Your task to perform on an android device: check battery use Image 0: 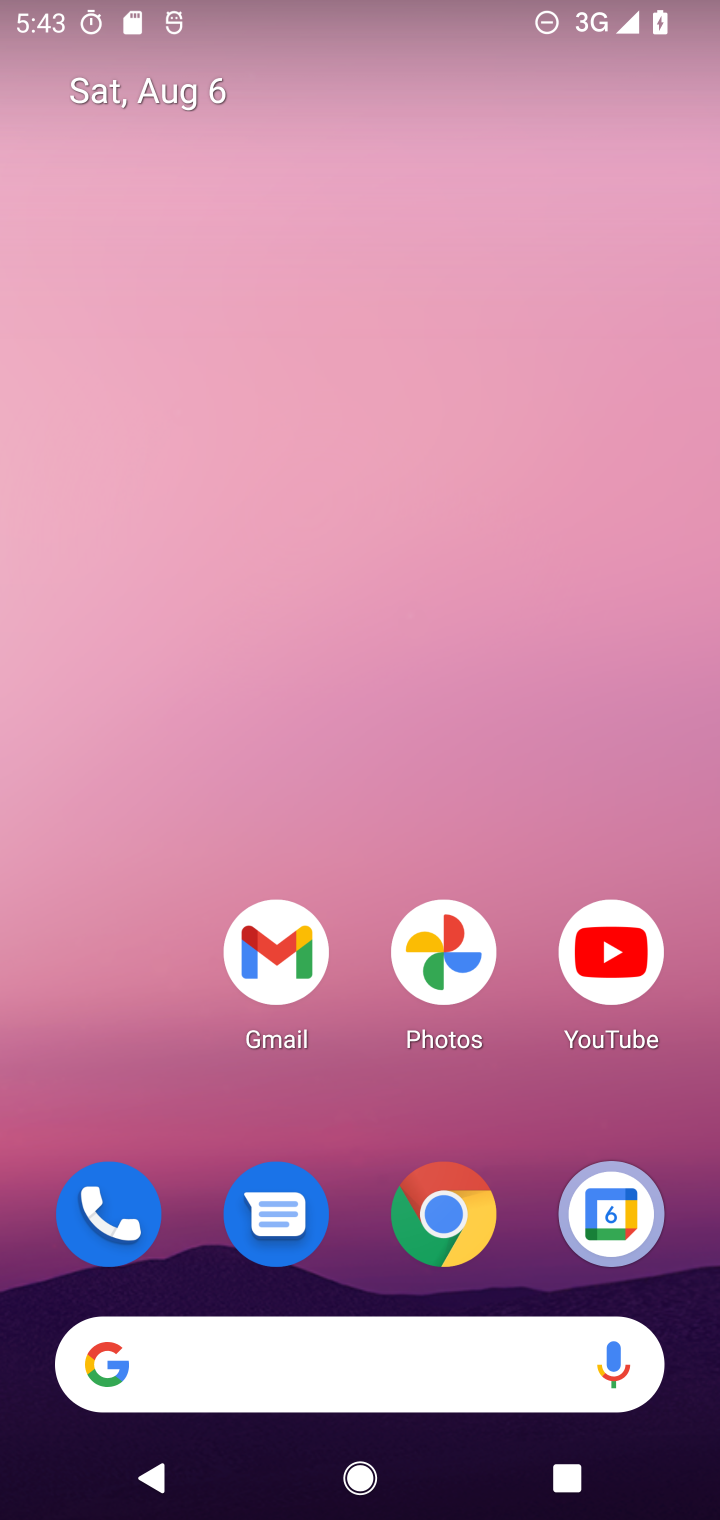
Step 0: press home button
Your task to perform on an android device: check battery use Image 1: 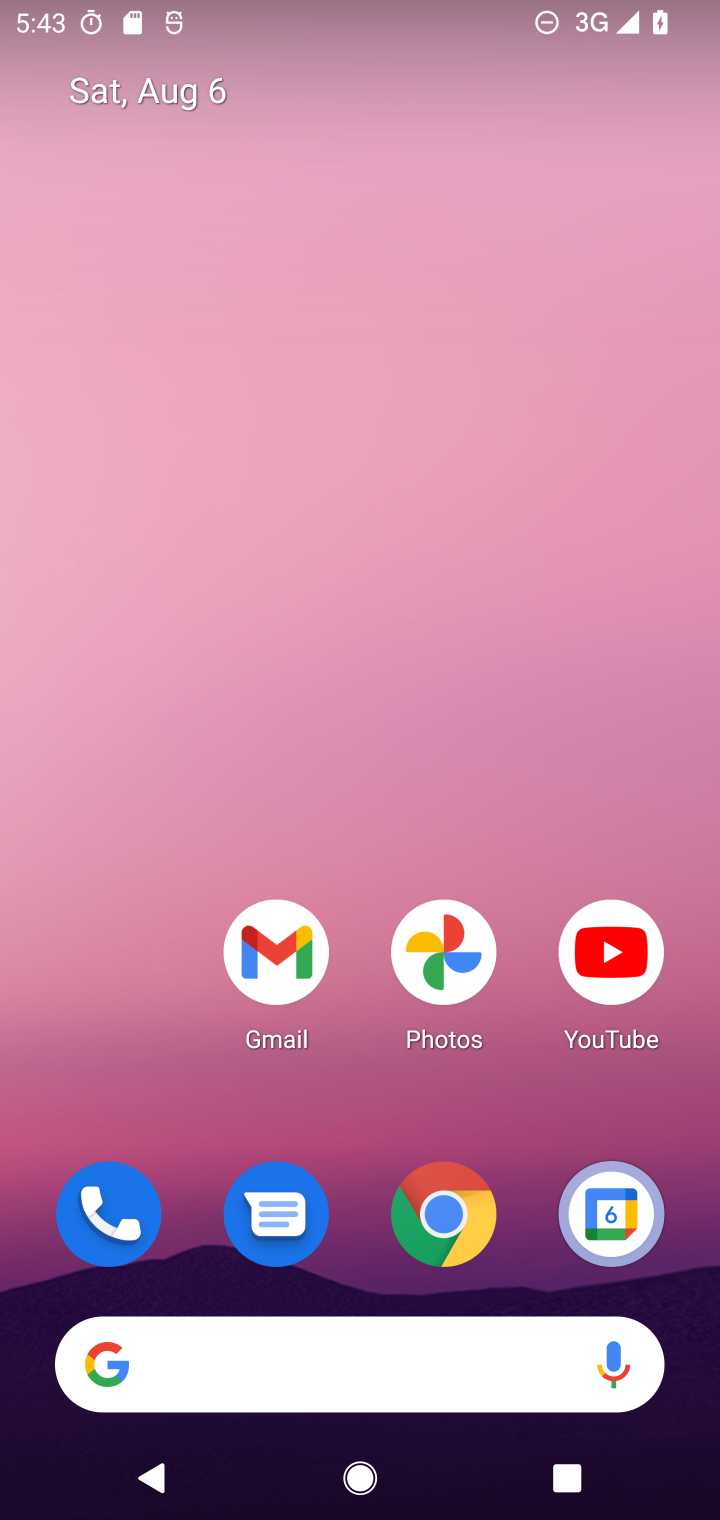
Step 1: drag from (370, 666) to (370, 587)
Your task to perform on an android device: check battery use Image 2: 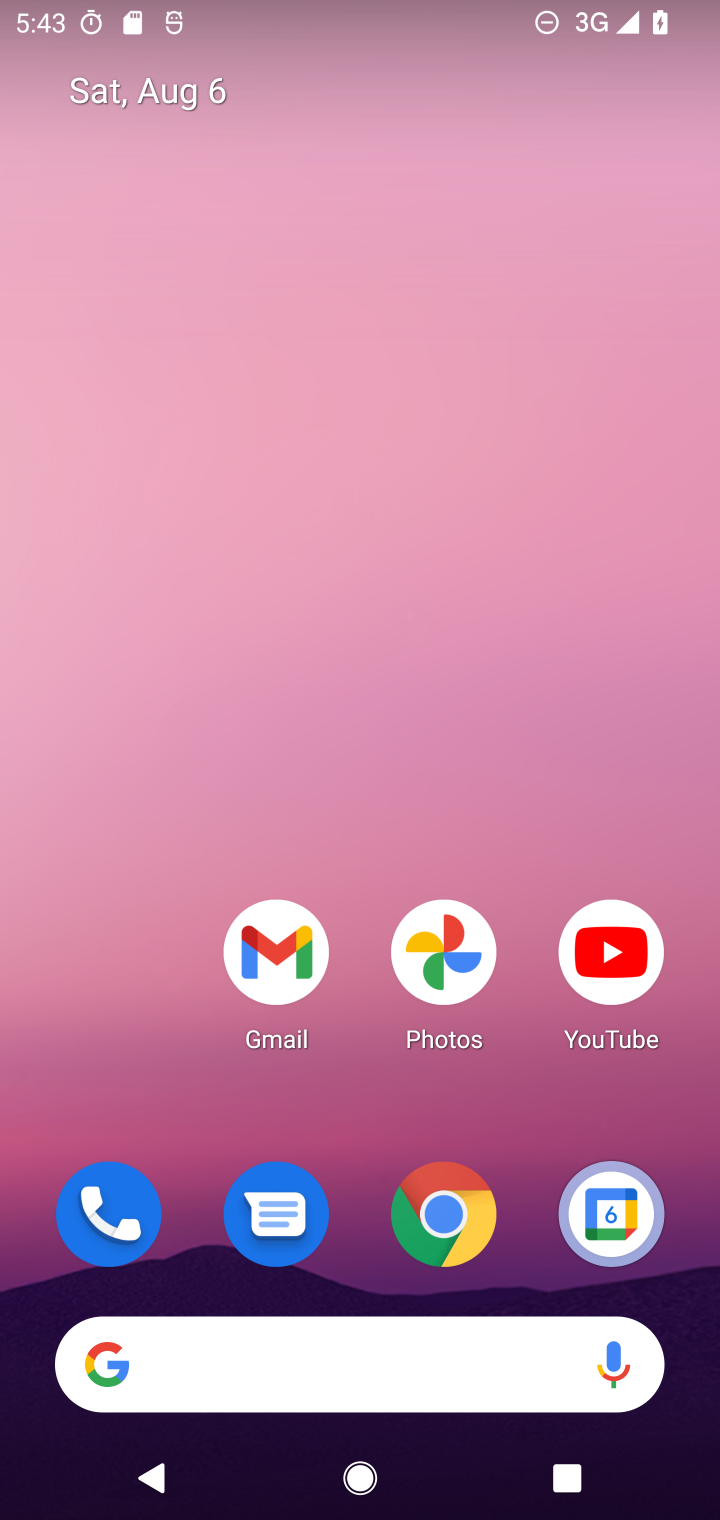
Step 2: drag from (343, 1089) to (319, 0)
Your task to perform on an android device: check battery use Image 3: 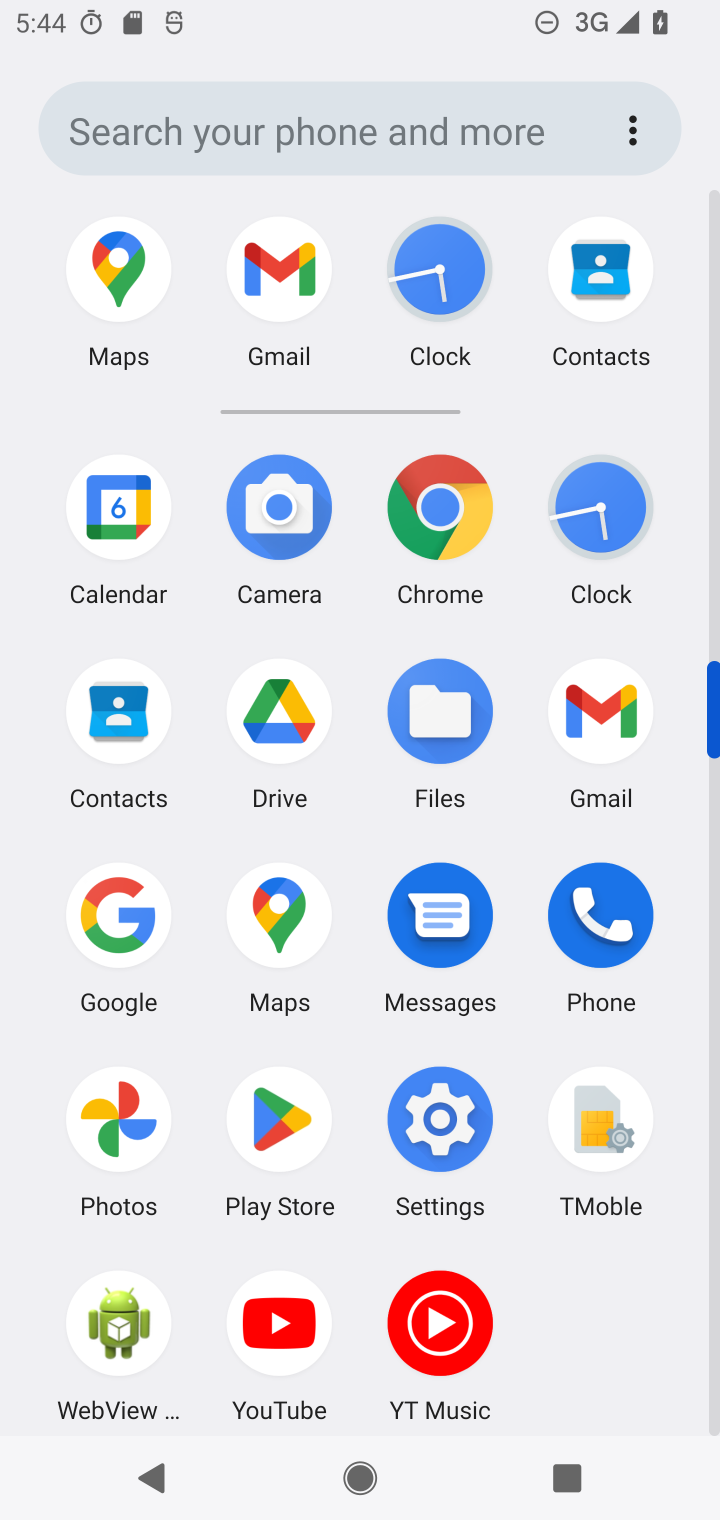
Step 3: click (444, 1135)
Your task to perform on an android device: check battery use Image 4: 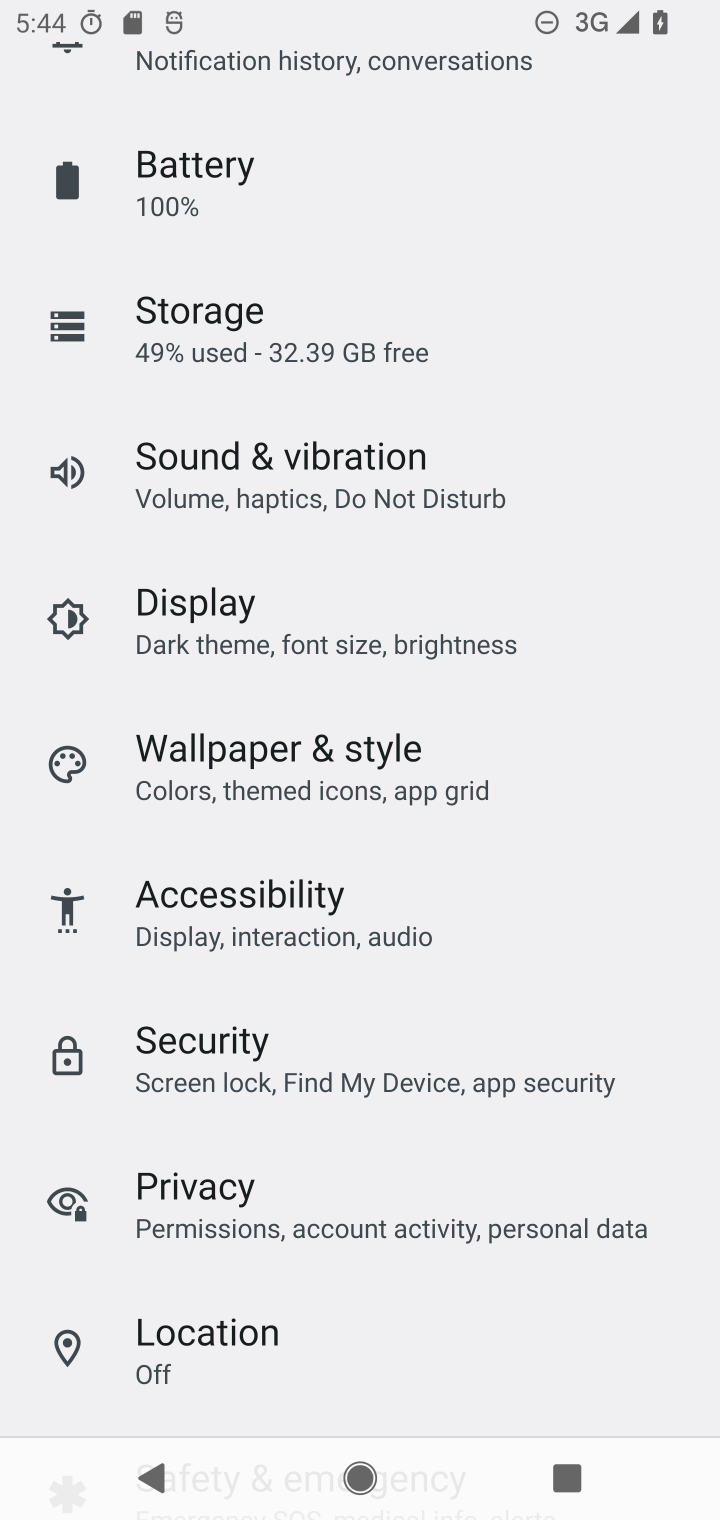
Step 4: click (148, 171)
Your task to perform on an android device: check battery use Image 5: 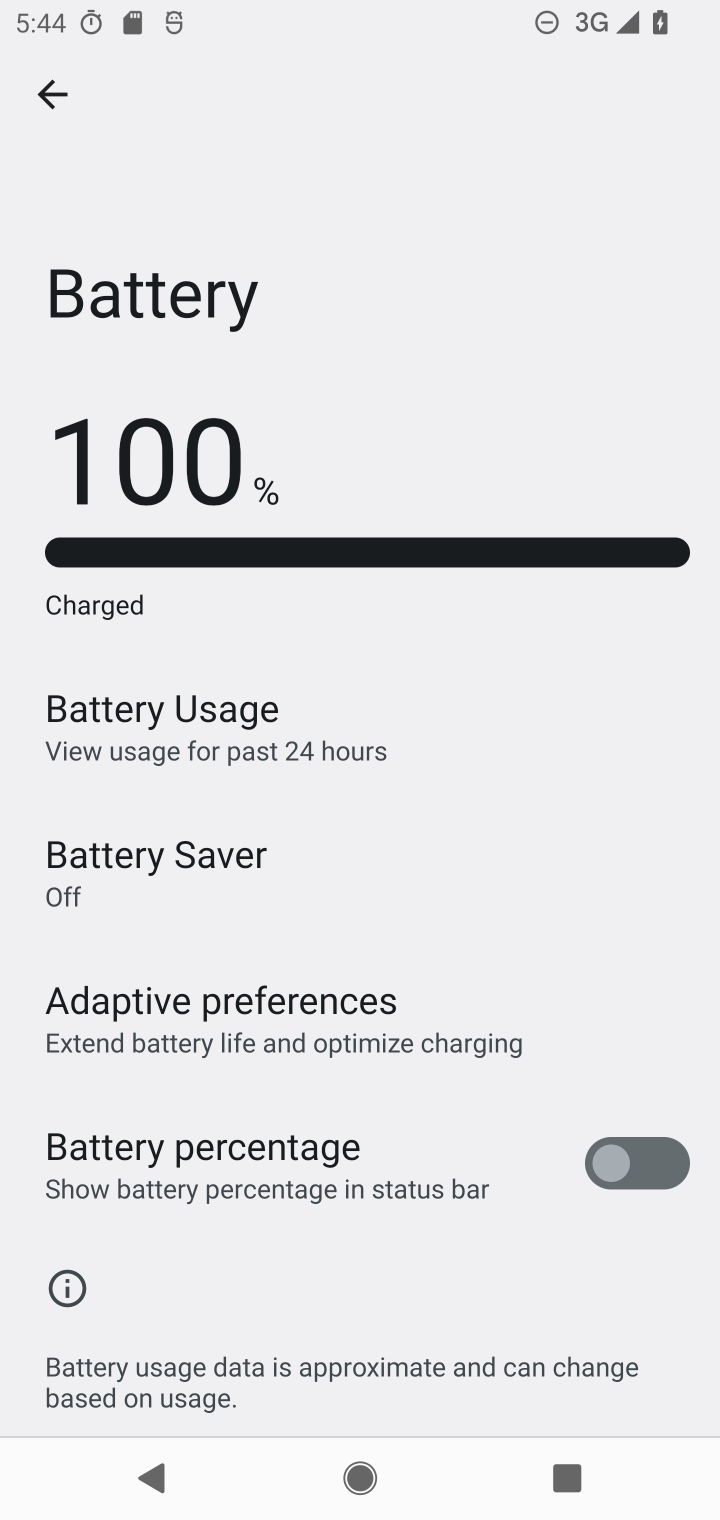
Step 5: task complete